Your task to perform on an android device: set the timer Image 0: 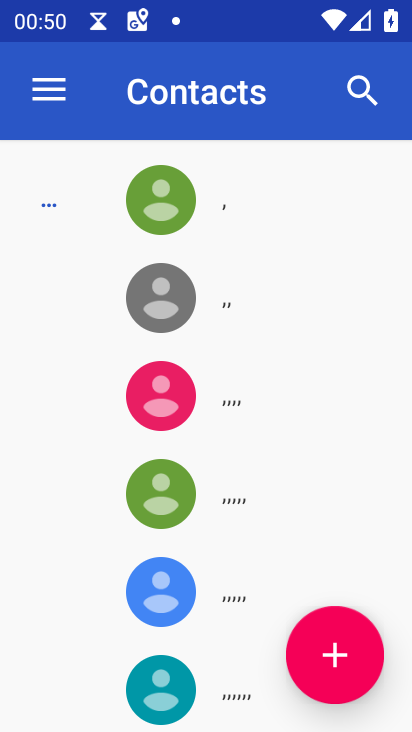
Step 0: press home button
Your task to perform on an android device: set the timer Image 1: 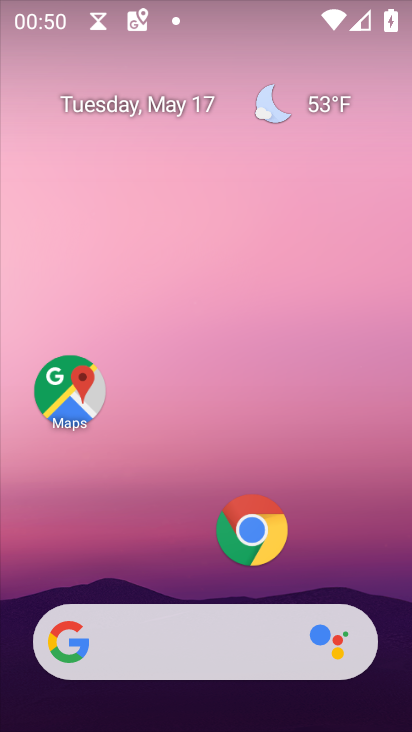
Step 1: drag from (321, 560) to (241, 4)
Your task to perform on an android device: set the timer Image 2: 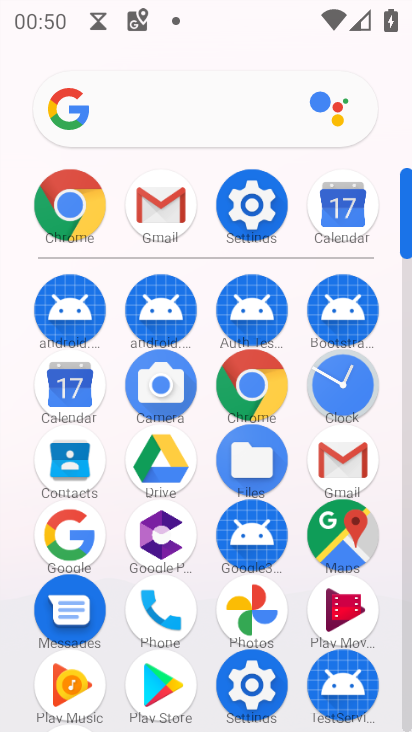
Step 2: click (355, 399)
Your task to perform on an android device: set the timer Image 3: 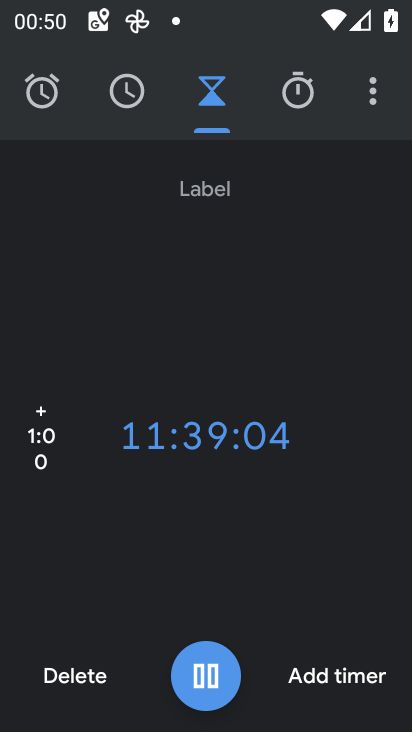
Step 3: click (338, 672)
Your task to perform on an android device: set the timer Image 4: 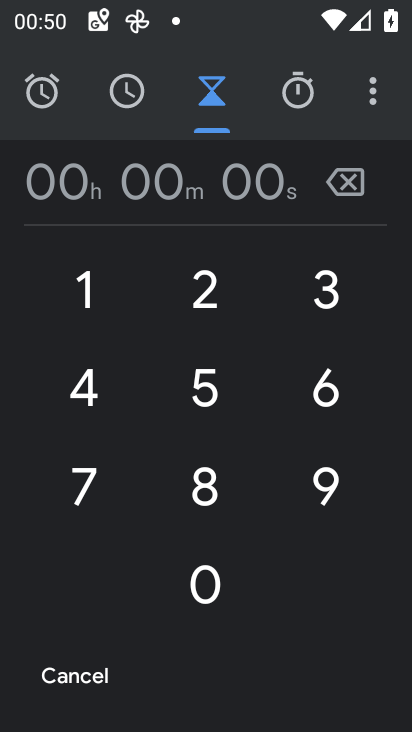
Step 4: click (204, 294)
Your task to perform on an android device: set the timer Image 5: 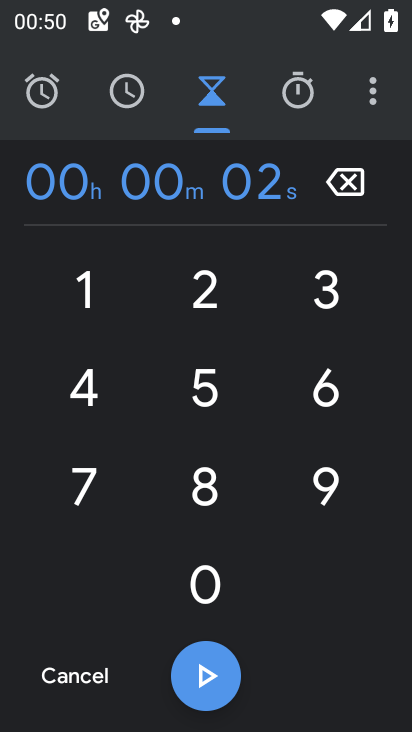
Step 5: click (204, 294)
Your task to perform on an android device: set the timer Image 6: 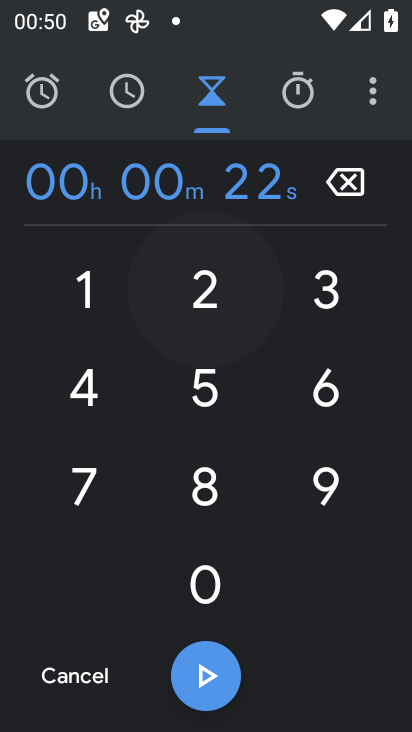
Step 6: click (220, 300)
Your task to perform on an android device: set the timer Image 7: 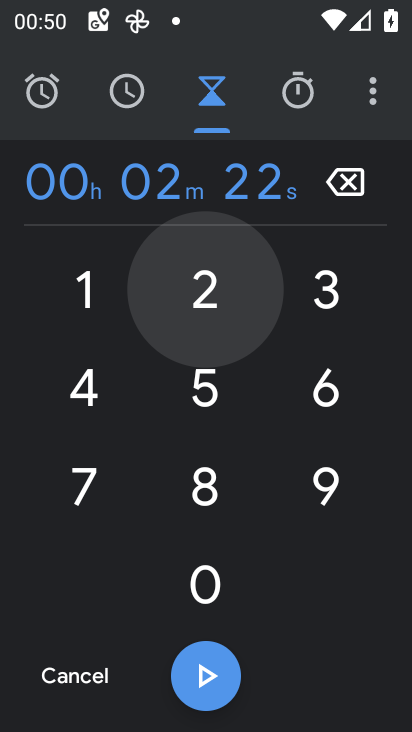
Step 7: click (221, 299)
Your task to perform on an android device: set the timer Image 8: 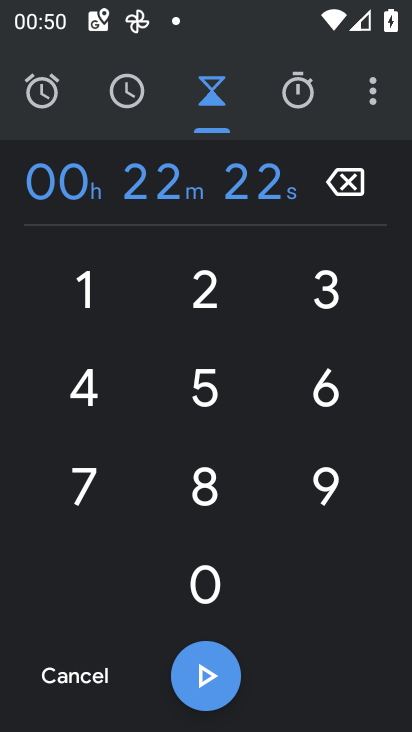
Step 8: click (221, 298)
Your task to perform on an android device: set the timer Image 9: 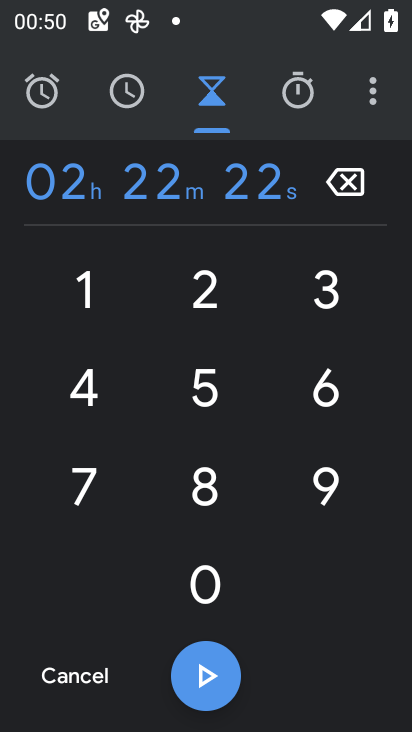
Step 9: click (213, 649)
Your task to perform on an android device: set the timer Image 10: 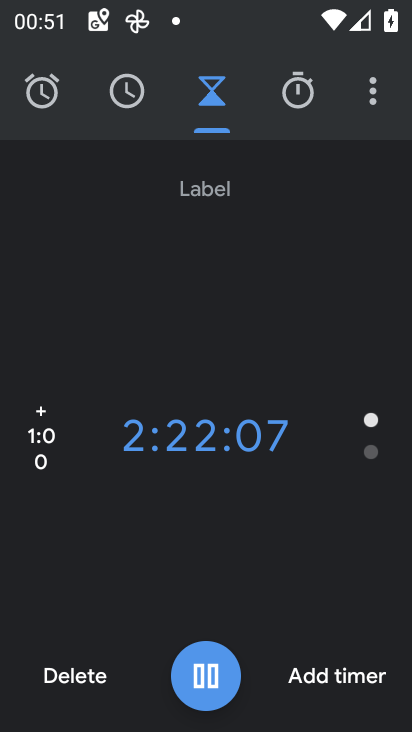
Step 10: task complete